Your task to perform on an android device: What's the weather today? Image 0: 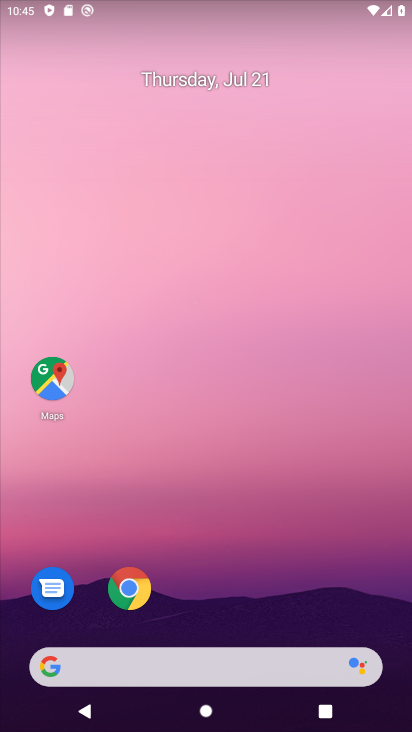
Step 0: drag from (194, 500) to (5, 546)
Your task to perform on an android device: What's the weather today? Image 1: 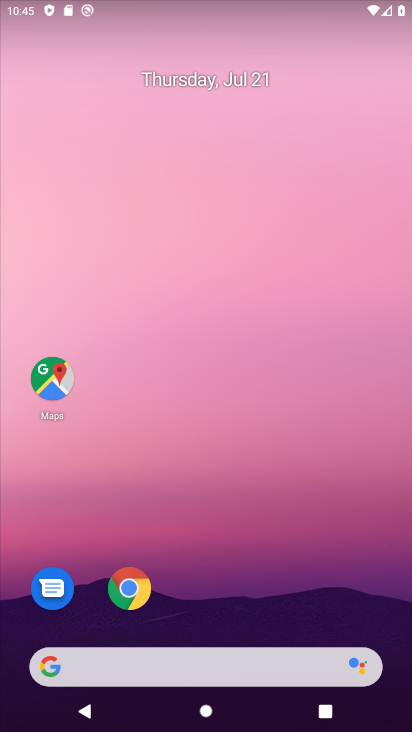
Step 1: drag from (200, 604) to (290, 6)
Your task to perform on an android device: What's the weather today? Image 2: 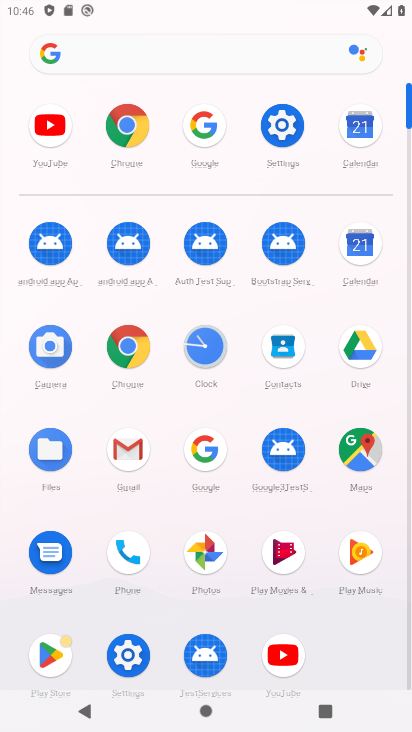
Step 2: drag from (213, 619) to (305, 170)
Your task to perform on an android device: What's the weather today? Image 3: 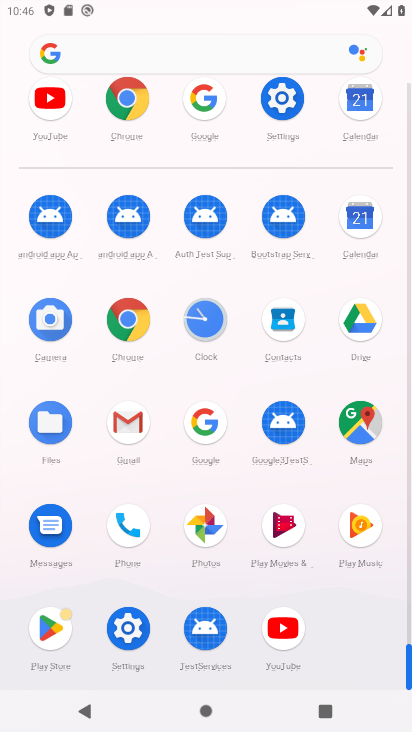
Step 3: drag from (202, 405) to (282, 106)
Your task to perform on an android device: What's the weather today? Image 4: 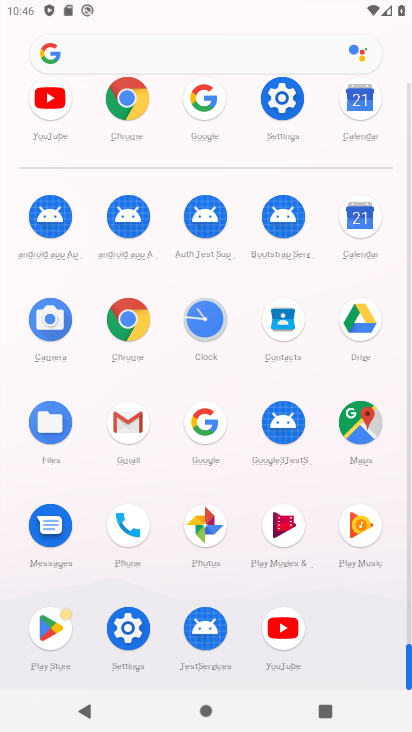
Step 4: click (123, 45)
Your task to perform on an android device: What's the weather today? Image 5: 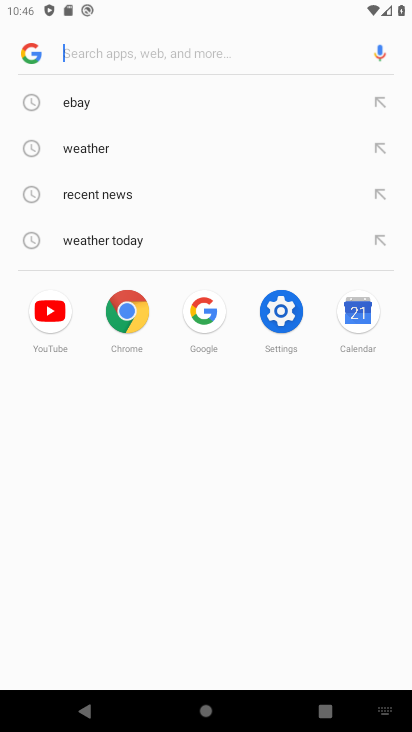
Step 5: click (95, 148)
Your task to perform on an android device: What's the weather today? Image 6: 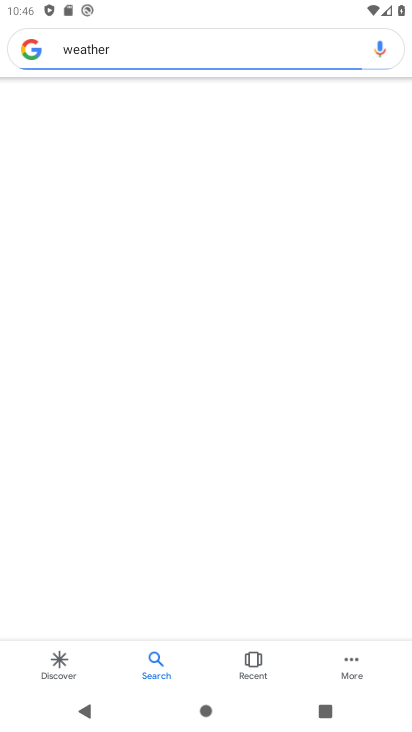
Step 6: task complete